Your task to perform on an android device: open a new tab in the chrome app Image 0: 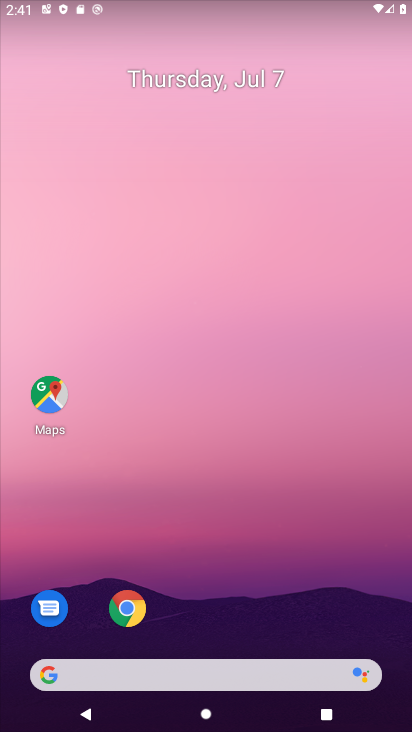
Step 0: click (124, 609)
Your task to perform on an android device: open a new tab in the chrome app Image 1: 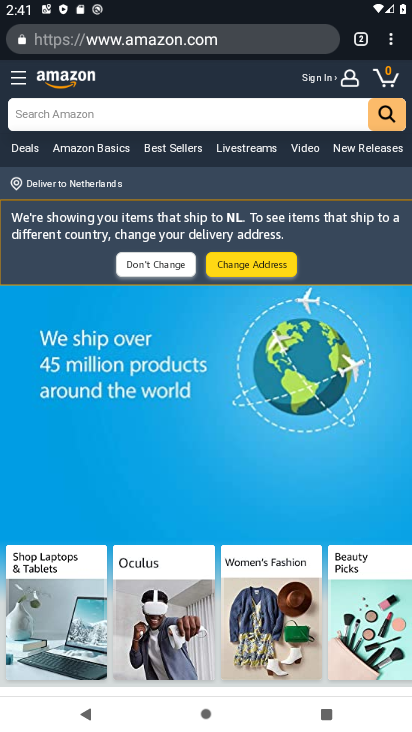
Step 1: click (392, 42)
Your task to perform on an android device: open a new tab in the chrome app Image 2: 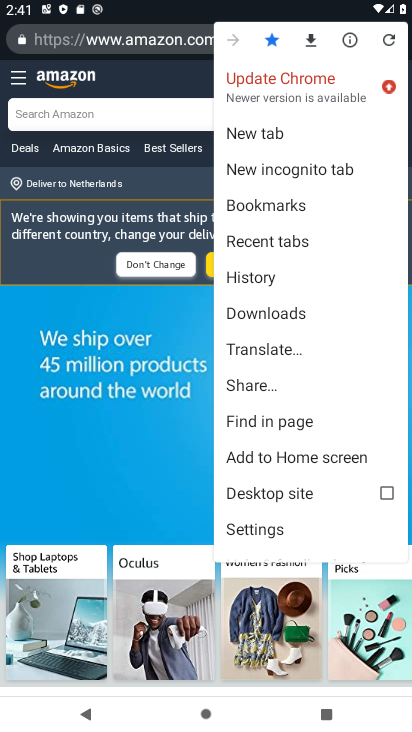
Step 2: click (250, 127)
Your task to perform on an android device: open a new tab in the chrome app Image 3: 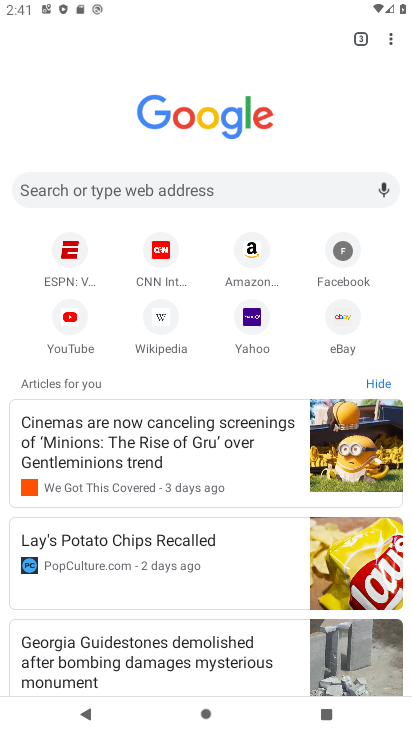
Step 3: task complete